Your task to perform on an android device: add a contact in the contacts app Image 0: 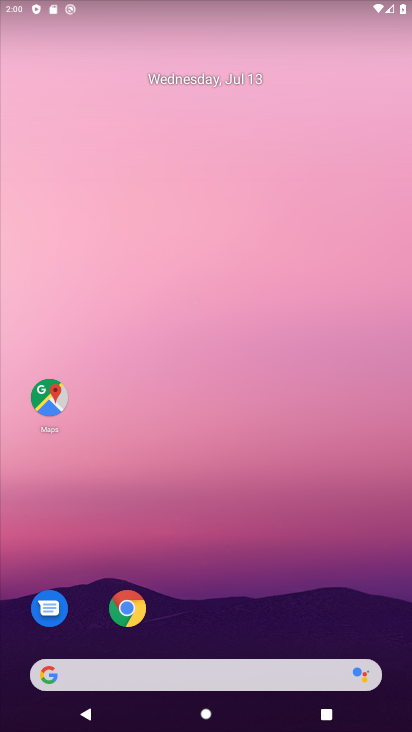
Step 0: drag from (181, 598) to (147, 215)
Your task to perform on an android device: add a contact in the contacts app Image 1: 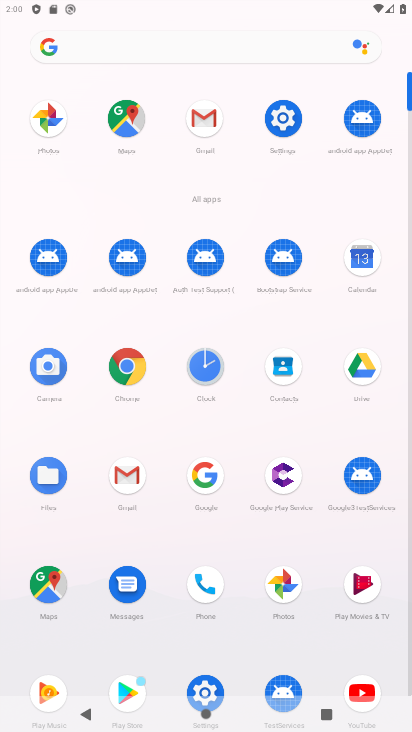
Step 1: click (291, 372)
Your task to perform on an android device: add a contact in the contacts app Image 2: 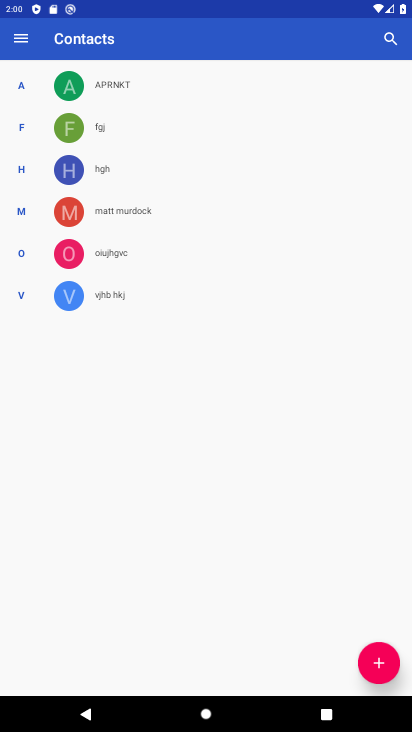
Step 2: click (384, 663)
Your task to perform on an android device: add a contact in the contacts app Image 3: 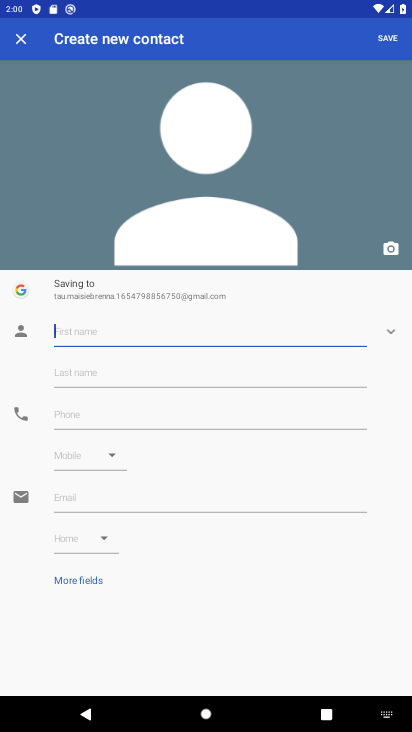
Step 3: type "Vinay"
Your task to perform on an android device: add a contact in the contacts app Image 4: 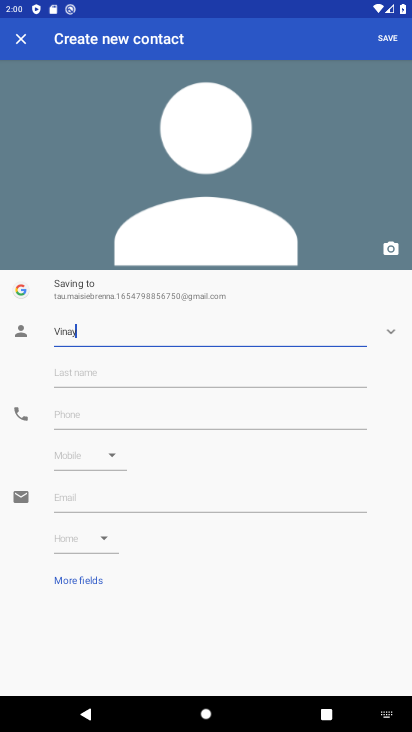
Step 4: click (113, 408)
Your task to perform on an android device: add a contact in the contacts app Image 5: 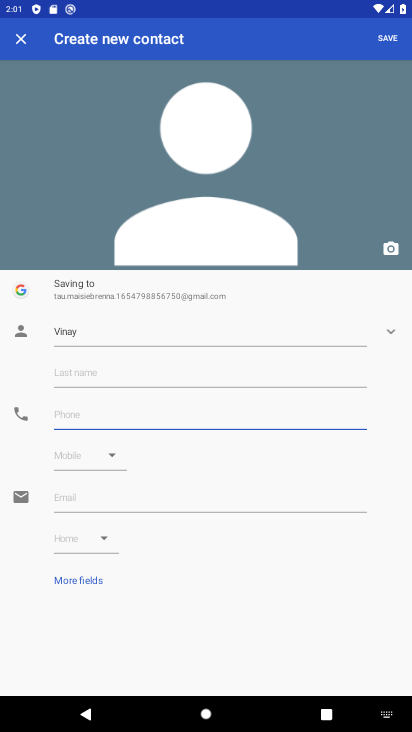
Step 5: type "8778877899"
Your task to perform on an android device: add a contact in the contacts app Image 6: 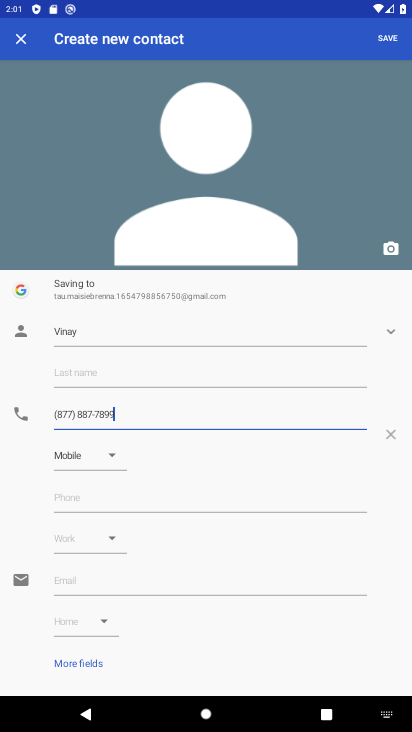
Step 6: click (387, 40)
Your task to perform on an android device: add a contact in the contacts app Image 7: 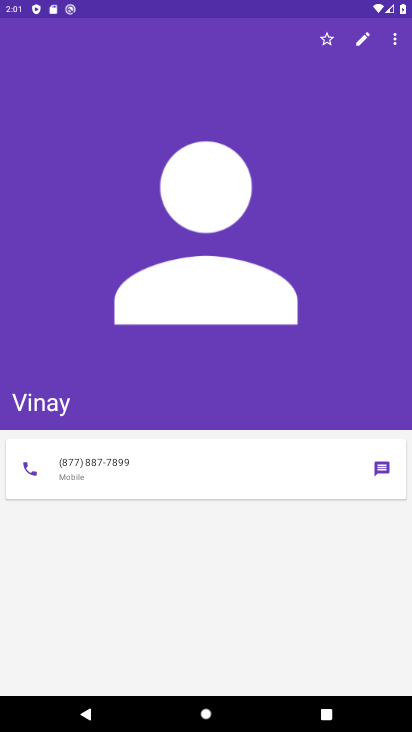
Step 7: task complete